Your task to perform on an android device: Open settings on Google Maps Image 0: 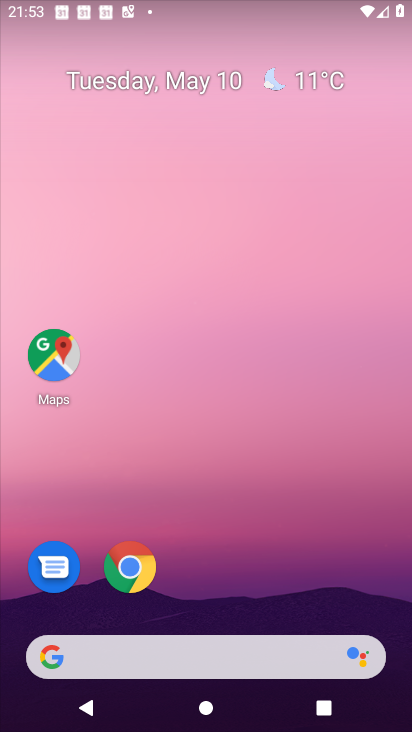
Step 0: click (51, 346)
Your task to perform on an android device: Open settings on Google Maps Image 1: 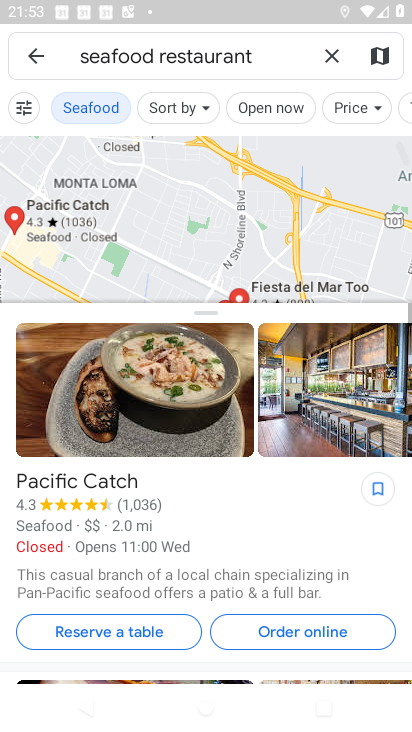
Step 1: click (33, 41)
Your task to perform on an android device: Open settings on Google Maps Image 2: 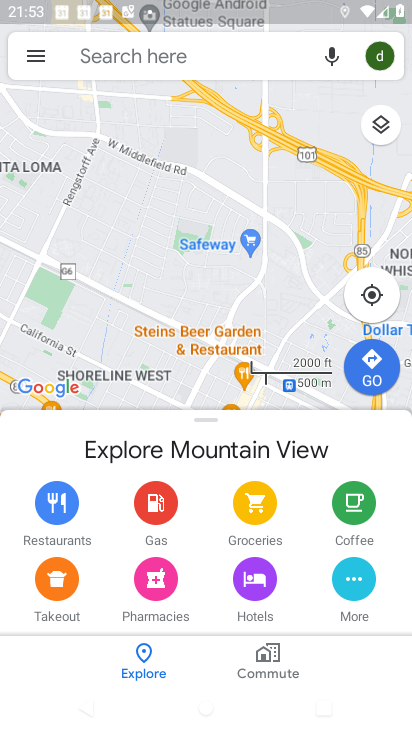
Step 2: click (32, 63)
Your task to perform on an android device: Open settings on Google Maps Image 3: 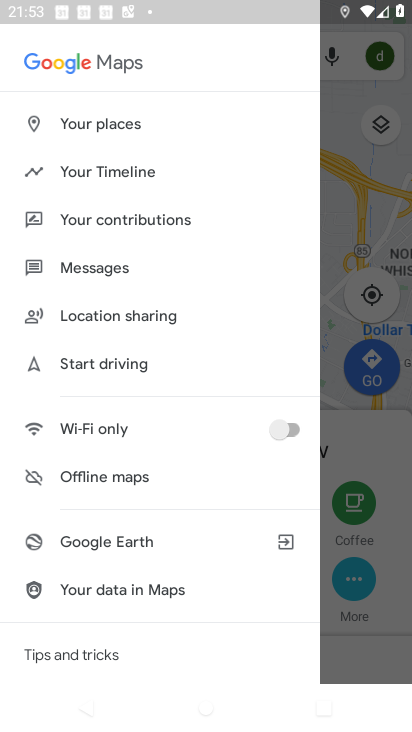
Step 3: drag from (105, 580) to (125, 249)
Your task to perform on an android device: Open settings on Google Maps Image 4: 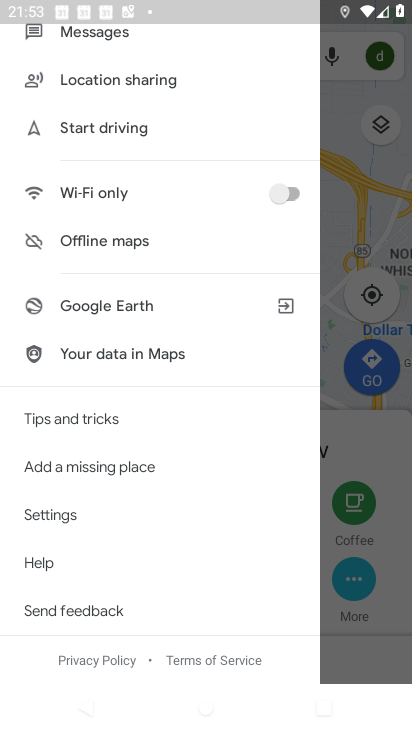
Step 4: click (43, 507)
Your task to perform on an android device: Open settings on Google Maps Image 5: 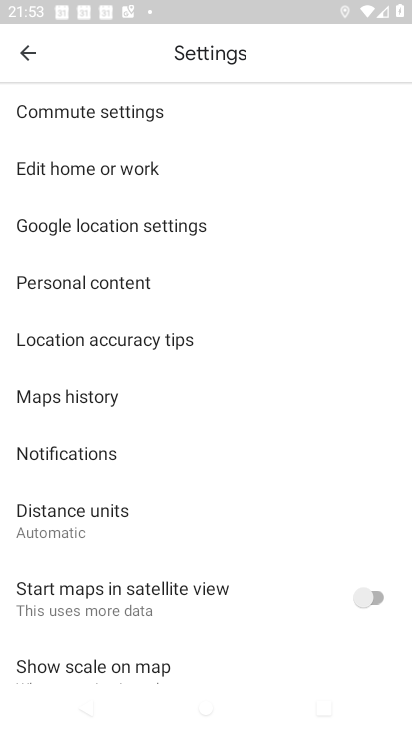
Step 5: click (68, 113)
Your task to perform on an android device: Open settings on Google Maps Image 6: 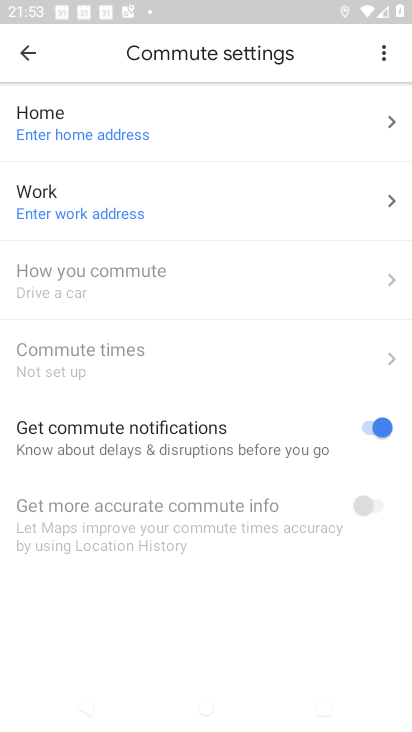
Step 6: click (21, 48)
Your task to perform on an android device: Open settings on Google Maps Image 7: 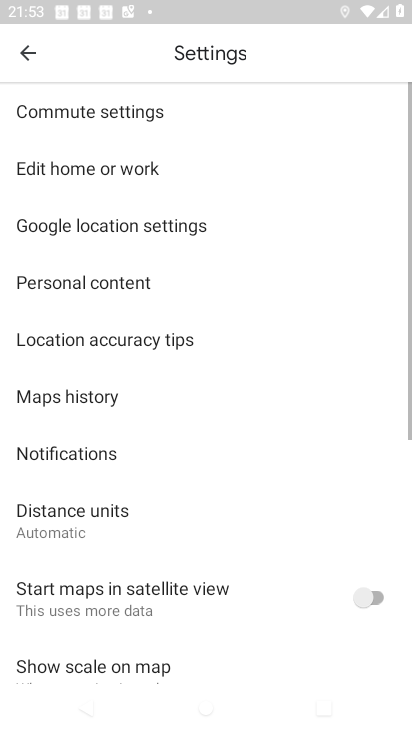
Step 7: click (23, 50)
Your task to perform on an android device: Open settings on Google Maps Image 8: 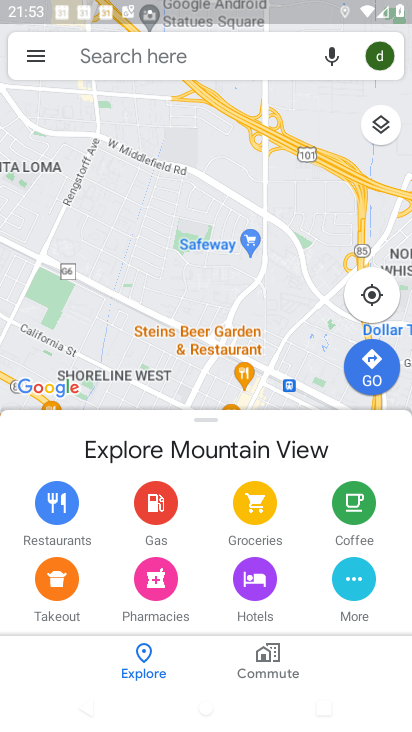
Step 8: task complete